Your task to perform on an android device: Open my contact list Image 0: 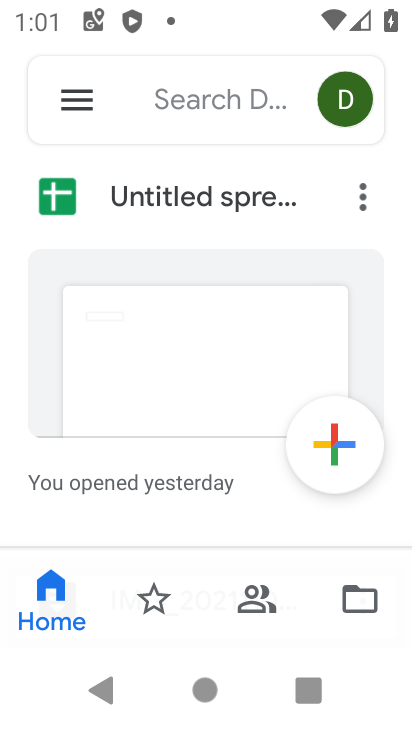
Step 0: press home button
Your task to perform on an android device: Open my contact list Image 1: 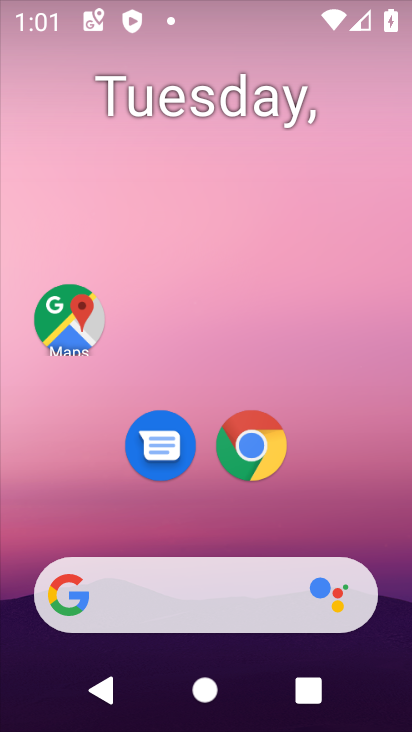
Step 1: drag from (356, 451) to (399, 122)
Your task to perform on an android device: Open my contact list Image 2: 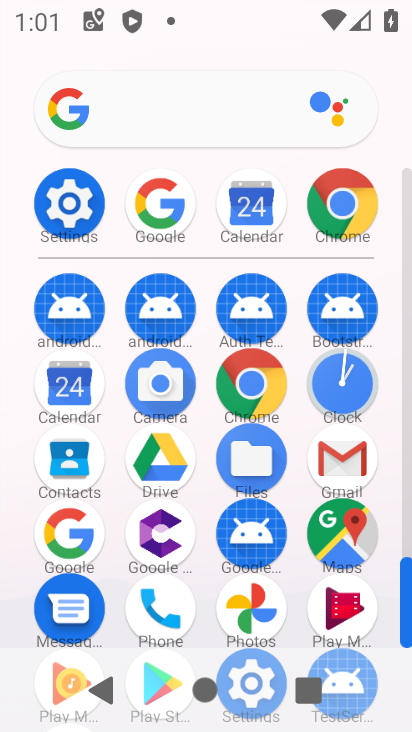
Step 2: drag from (402, 444) to (297, 11)
Your task to perform on an android device: Open my contact list Image 3: 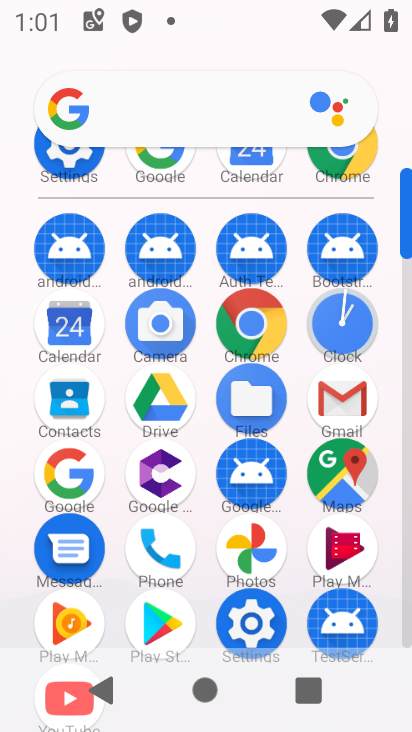
Step 3: click (169, 549)
Your task to perform on an android device: Open my contact list Image 4: 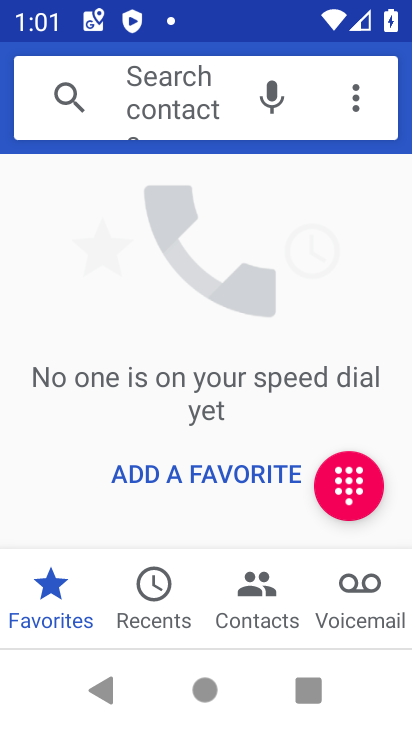
Step 4: click (259, 580)
Your task to perform on an android device: Open my contact list Image 5: 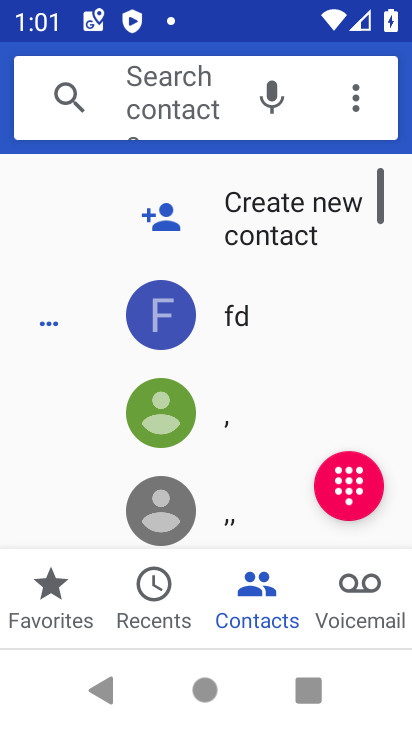
Step 5: task complete